Your task to perform on an android device: Open Amazon Image 0: 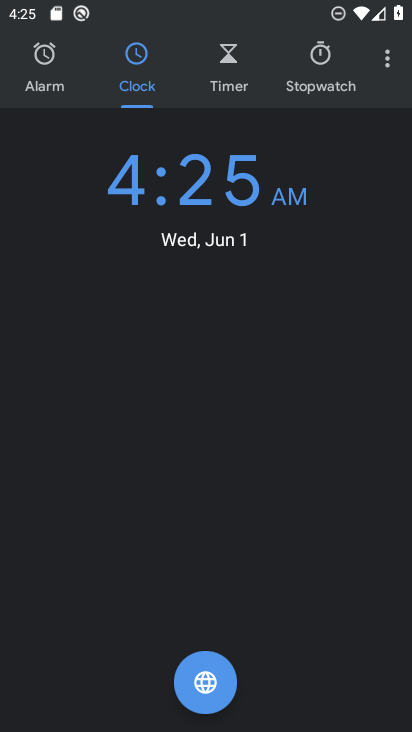
Step 0: press home button
Your task to perform on an android device: Open Amazon Image 1: 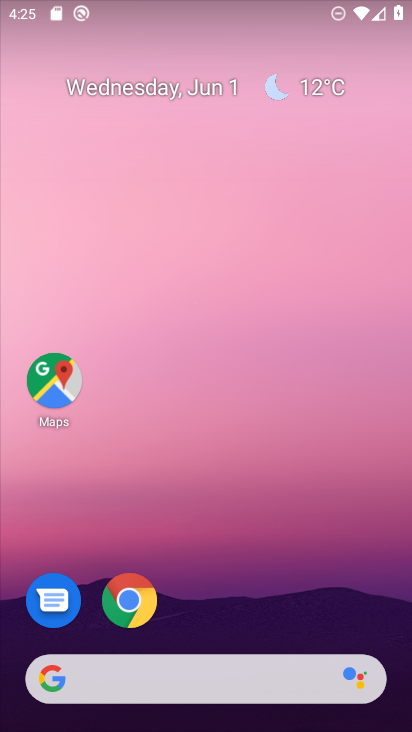
Step 1: click (132, 600)
Your task to perform on an android device: Open Amazon Image 2: 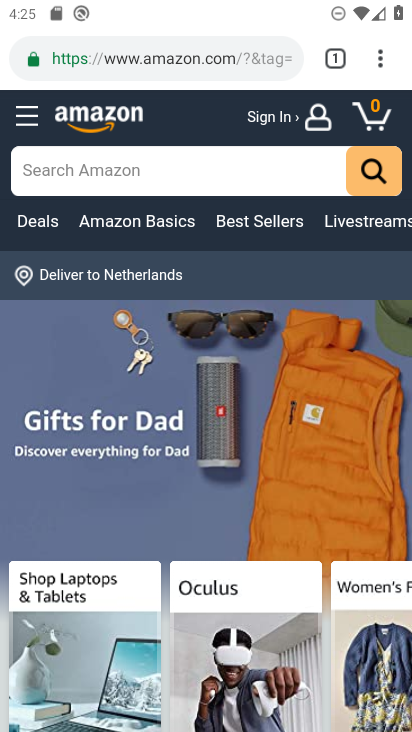
Step 2: task complete